Your task to perform on an android device: Go to Google maps Image 0: 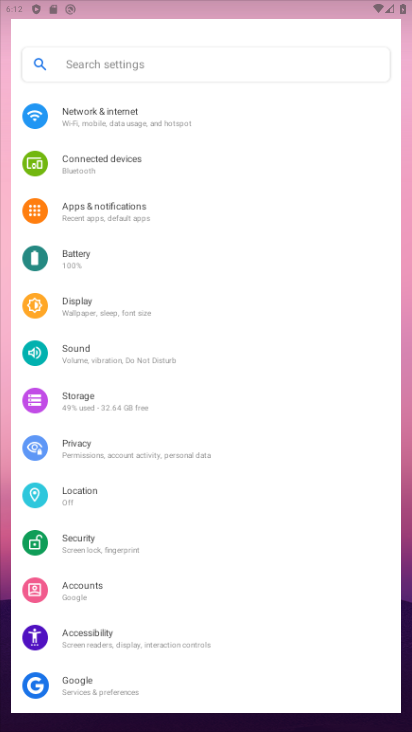
Step 0: press home button
Your task to perform on an android device: Go to Google maps Image 1: 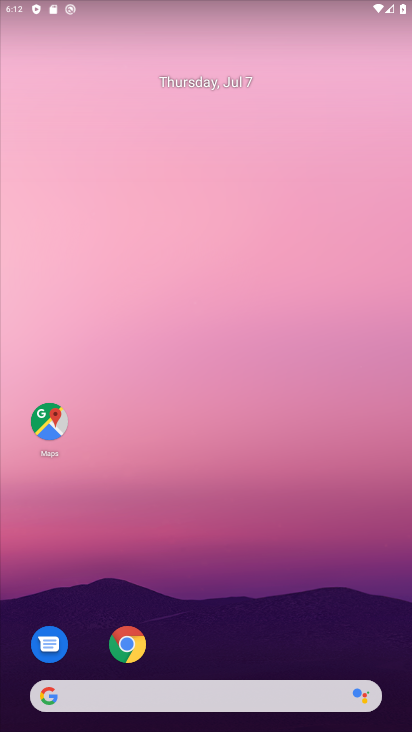
Step 1: click (53, 411)
Your task to perform on an android device: Go to Google maps Image 2: 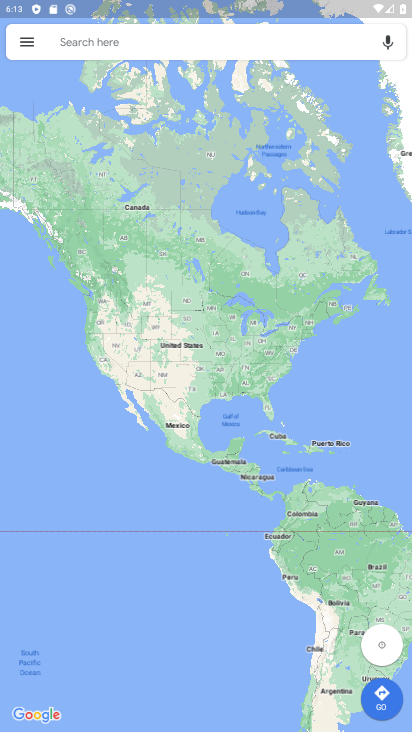
Step 2: task complete